Your task to perform on an android device: Do I have any events today? Image 0: 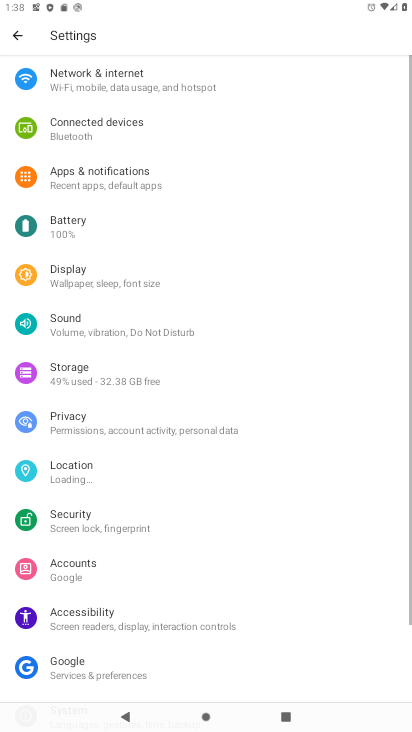
Step 0: press home button
Your task to perform on an android device: Do I have any events today? Image 1: 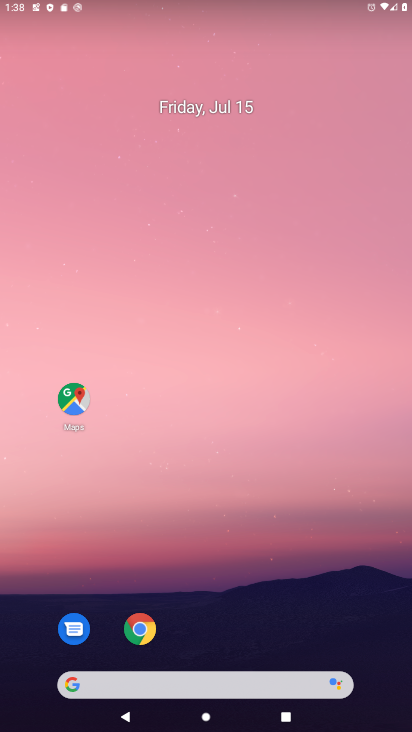
Step 1: drag from (329, 602) to (290, 157)
Your task to perform on an android device: Do I have any events today? Image 2: 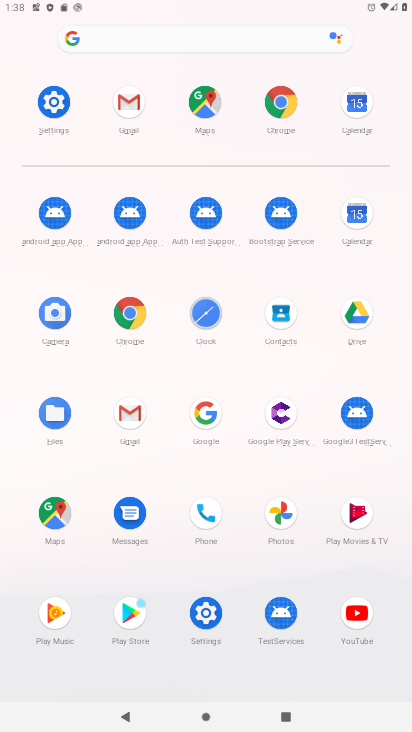
Step 2: click (353, 220)
Your task to perform on an android device: Do I have any events today? Image 3: 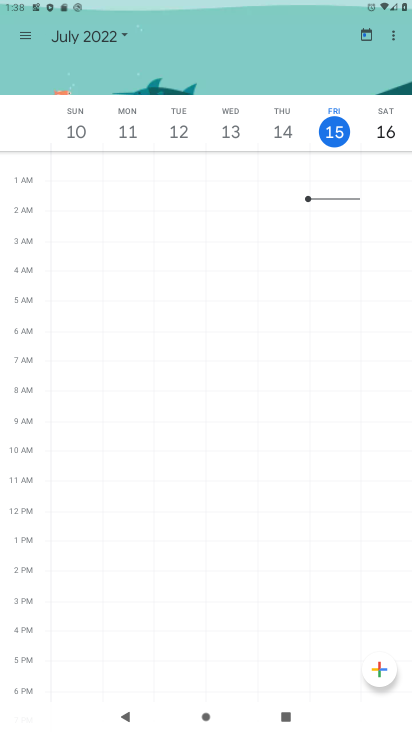
Step 3: task complete